Your task to perform on an android device: change keyboard looks Image 0: 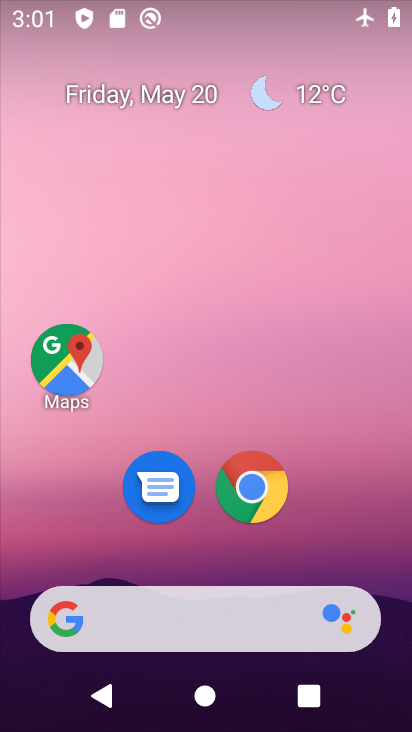
Step 0: drag from (333, 496) to (281, 321)
Your task to perform on an android device: change keyboard looks Image 1: 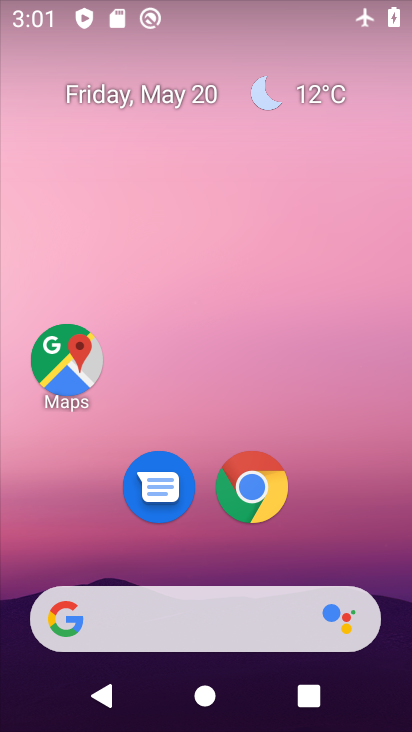
Step 1: drag from (333, 386) to (369, 111)
Your task to perform on an android device: change keyboard looks Image 2: 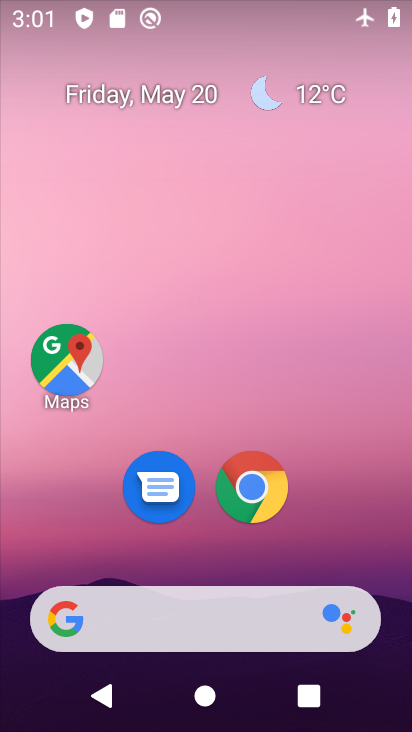
Step 2: drag from (311, 476) to (215, 163)
Your task to perform on an android device: change keyboard looks Image 3: 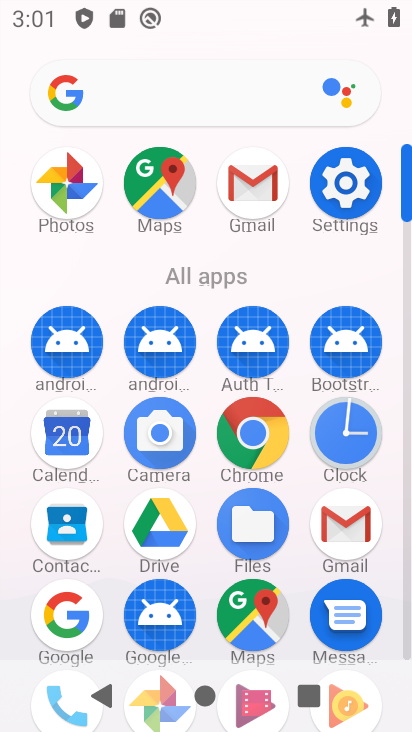
Step 3: click (352, 190)
Your task to perform on an android device: change keyboard looks Image 4: 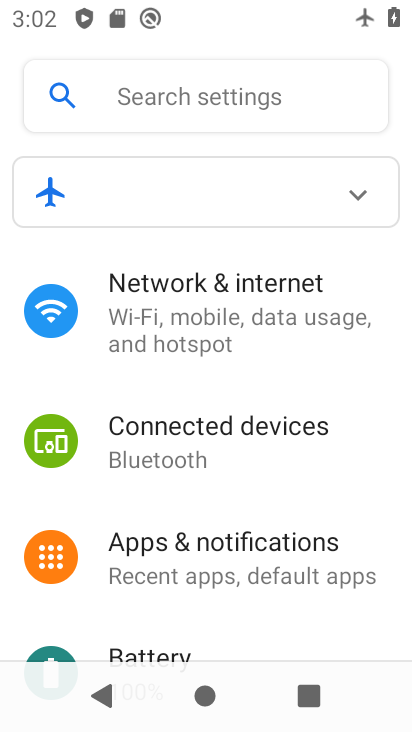
Step 4: drag from (210, 604) to (214, 182)
Your task to perform on an android device: change keyboard looks Image 5: 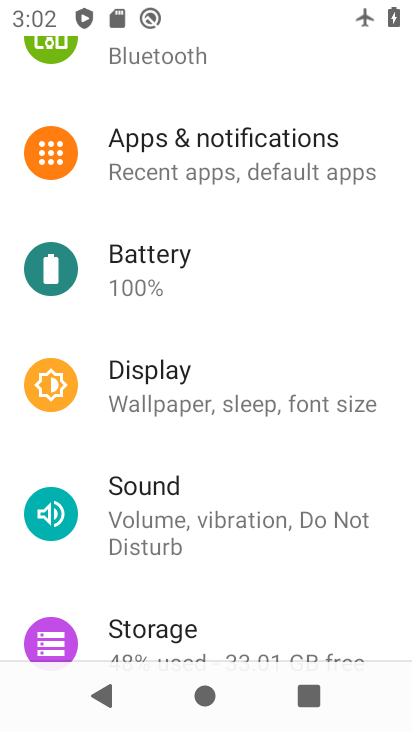
Step 5: drag from (227, 643) to (176, 345)
Your task to perform on an android device: change keyboard looks Image 6: 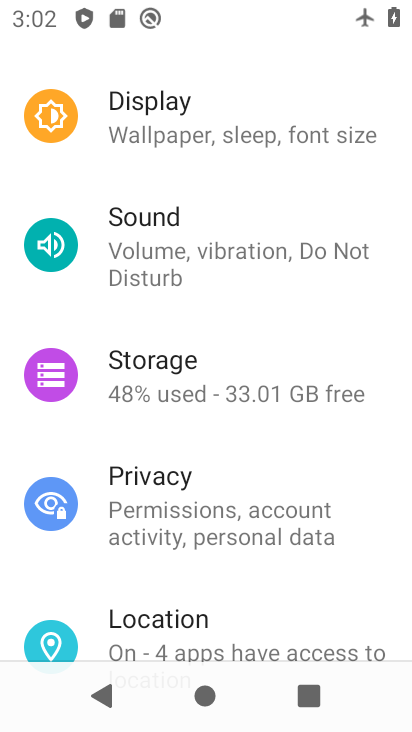
Step 6: drag from (190, 563) to (180, 279)
Your task to perform on an android device: change keyboard looks Image 7: 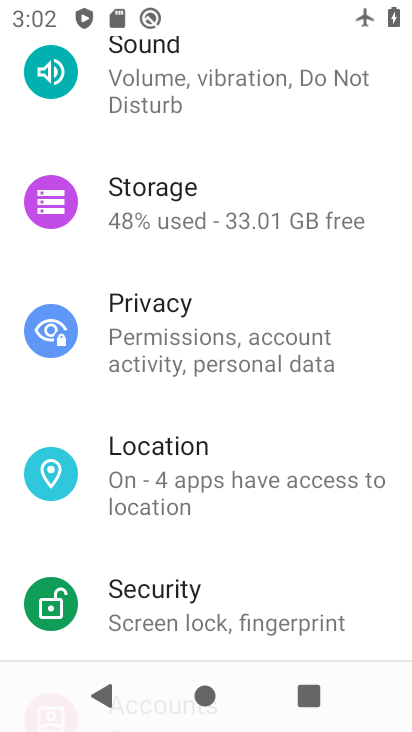
Step 7: drag from (244, 565) to (215, 254)
Your task to perform on an android device: change keyboard looks Image 8: 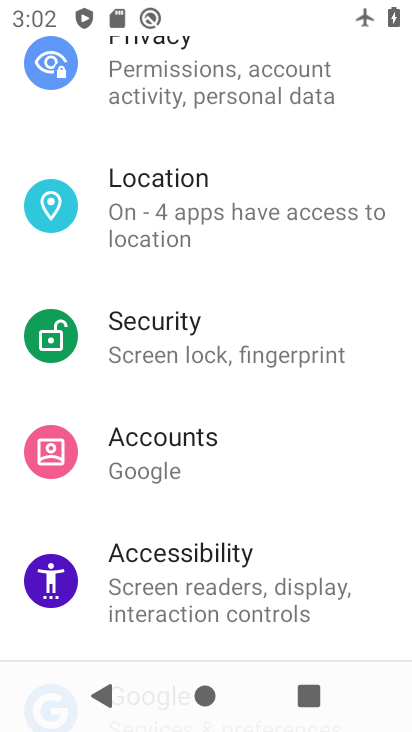
Step 8: drag from (221, 576) to (232, 269)
Your task to perform on an android device: change keyboard looks Image 9: 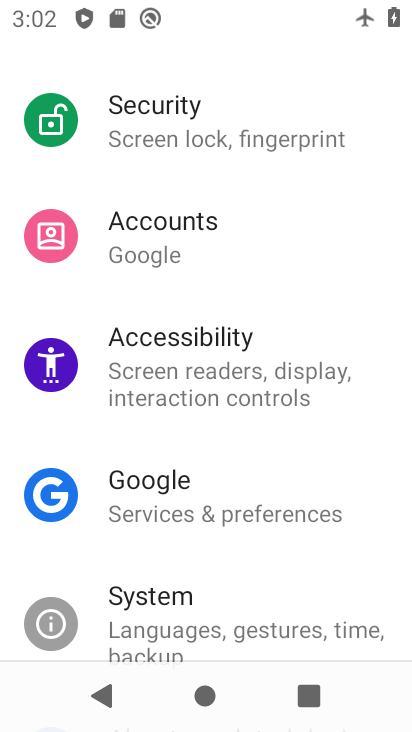
Step 9: drag from (204, 574) to (216, 318)
Your task to perform on an android device: change keyboard looks Image 10: 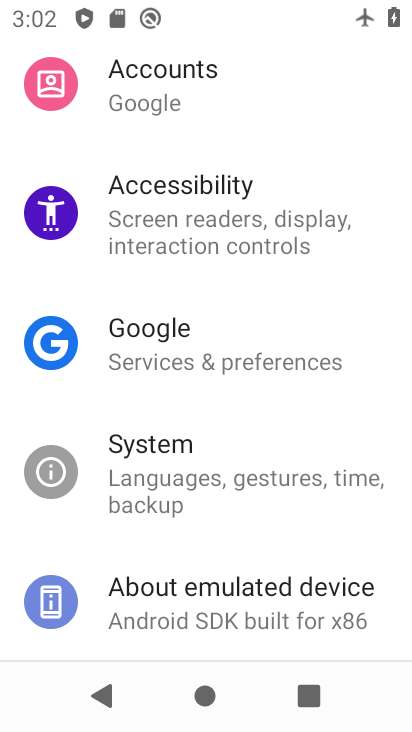
Step 10: drag from (247, 286) to (228, 441)
Your task to perform on an android device: change keyboard looks Image 11: 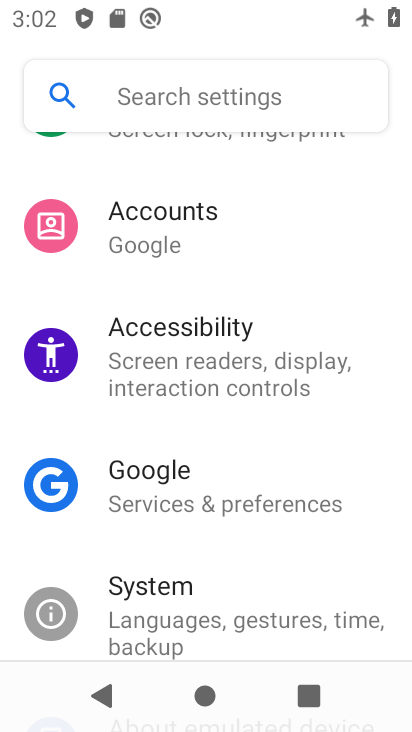
Step 11: drag from (260, 285) to (260, 446)
Your task to perform on an android device: change keyboard looks Image 12: 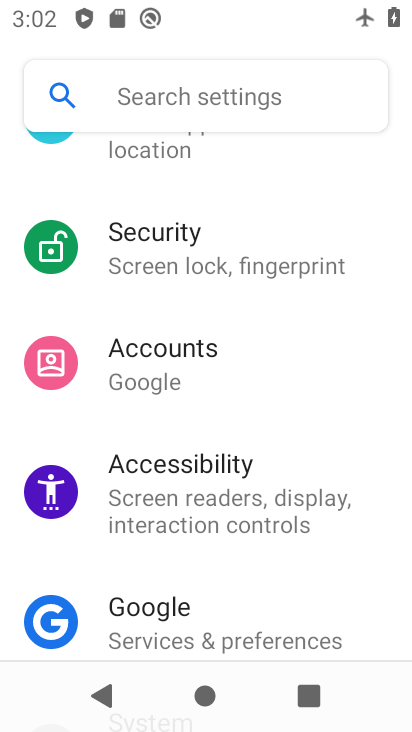
Step 12: drag from (254, 522) to (250, 324)
Your task to perform on an android device: change keyboard looks Image 13: 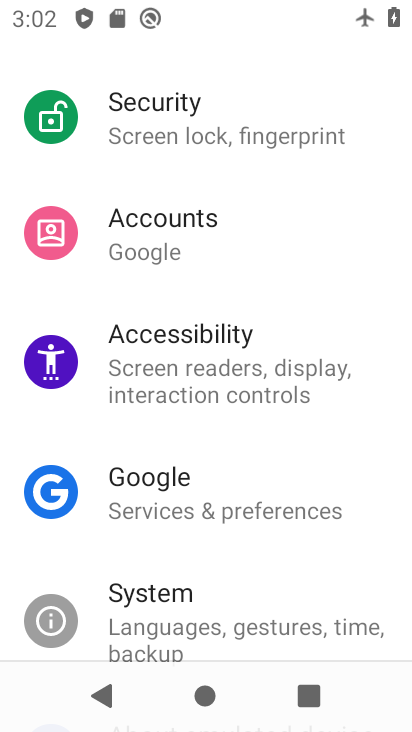
Step 13: drag from (214, 541) to (232, 326)
Your task to perform on an android device: change keyboard looks Image 14: 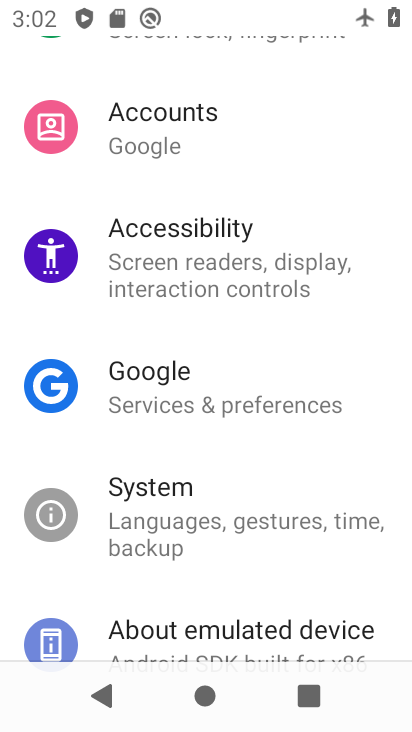
Step 14: drag from (233, 316) to (207, 478)
Your task to perform on an android device: change keyboard looks Image 15: 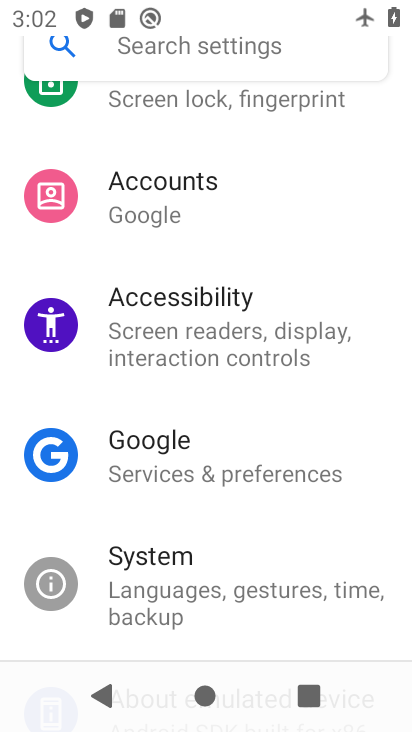
Step 15: drag from (239, 262) to (253, 497)
Your task to perform on an android device: change keyboard looks Image 16: 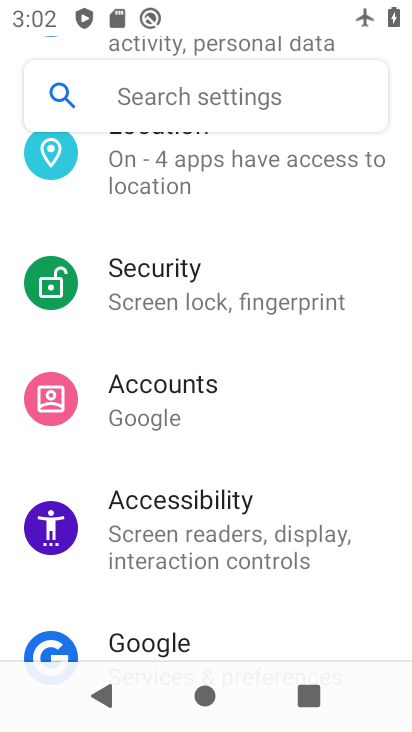
Step 16: drag from (230, 272) to (229, 479)
Your task to perform on an android device: change keyboard looks Image 17: 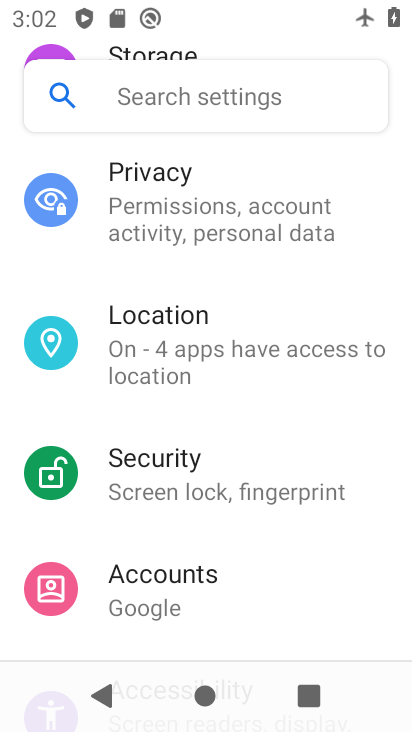
Step 17: drag from (243, 344) to (246, 435)
Your task to perform on an android device: change keyboard looks Image 18: 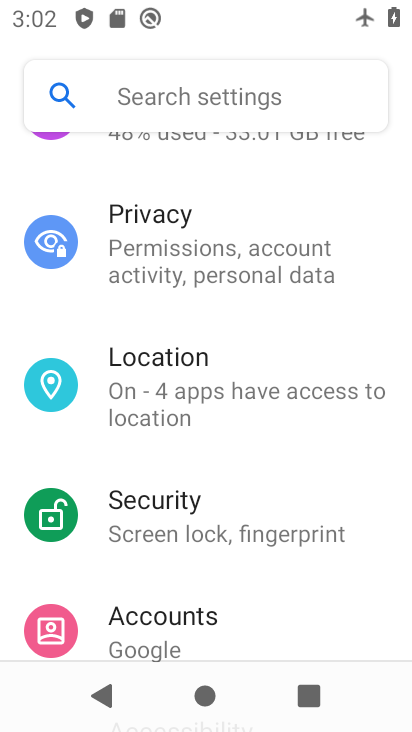
Step 18: drag from (215, 546) to (191, 210)
Your task to perform on an android device: change keyboard looks Image 19: 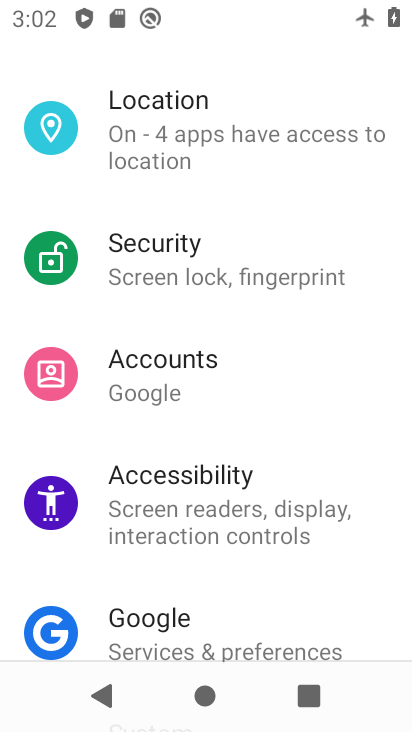
Step 19: drag from (220, 568) to (250, 289)
Your task to perform on an android device: change keyboard looks Image 20: 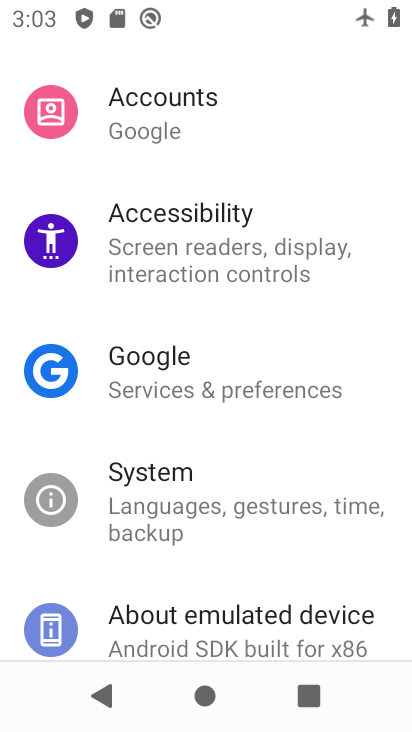
Step 20: drag from (151, 216) to (150, 357)
Your task to perform on an android device: change keyboard looks Image 21: 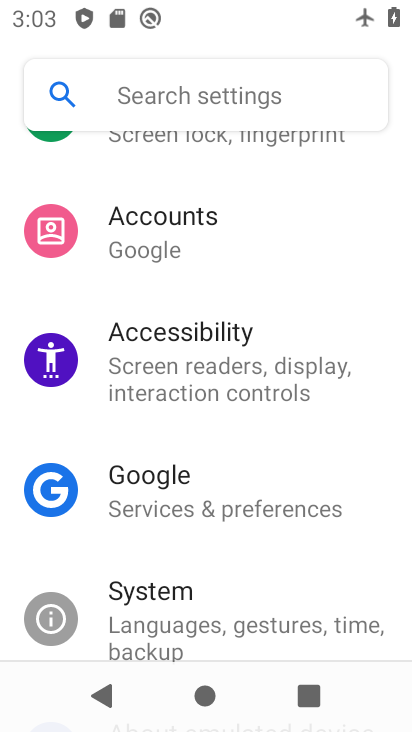
Step 21: drag from (151, 552) to (160, 346)
Your task to perform on an android device: change keyboard looks Image 22: 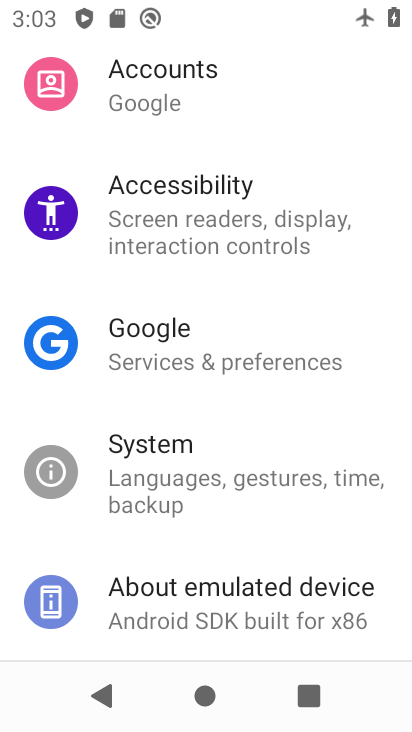
Step 22: click (161, 483)
Your task to perform on an android device: change keyboard looks Image 23: 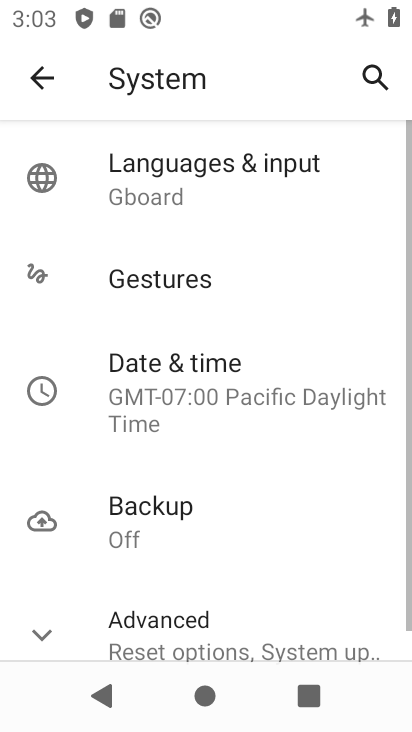
Step 23: click (184, 156)
Your task to perform on an android device: change keyboard looks Image 24: 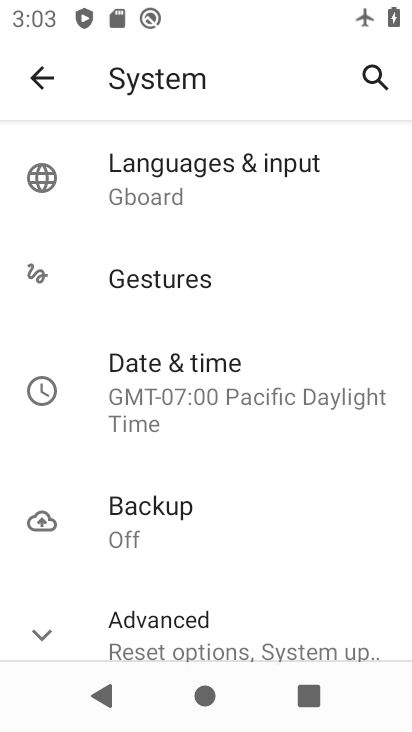
Step 24: click (167, 186)
Your task to perform on an android device: change keyboard looks Image 25: 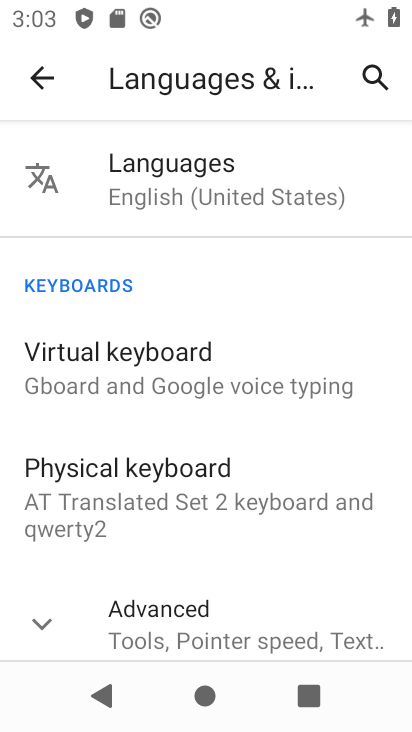
Step 25: click (148, 367)
Your task to perform on an android device: change keyboard looks Image 26: 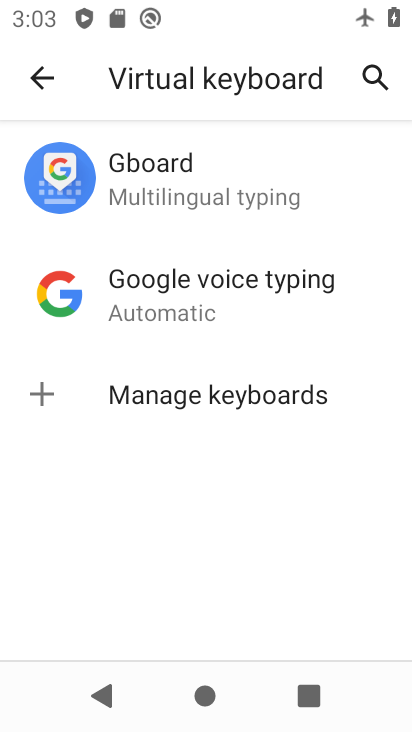
Step 26: click (177, 186)
Your task to perform on an android device: change keyboard looks Image 27: 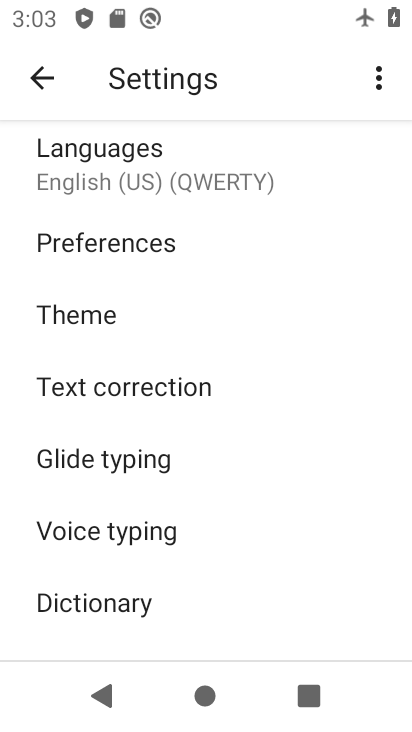
Step 27: click (92, 318)
Your task to perform on an android device: change keyboard looks Image 28: 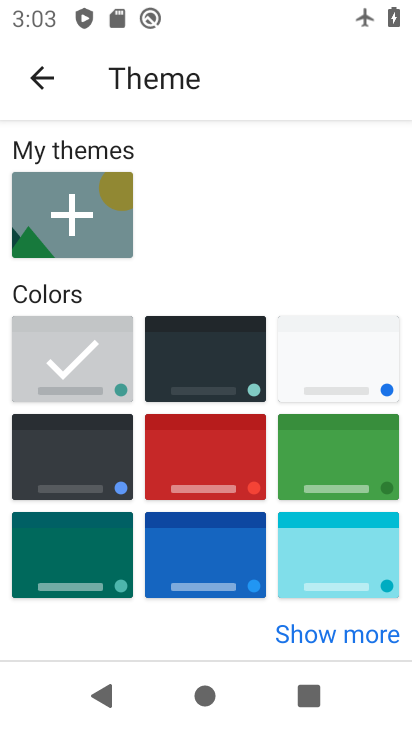
Step 28: click (165, 354)
Your task to perform on an android device: change keyboard looks Image 29: 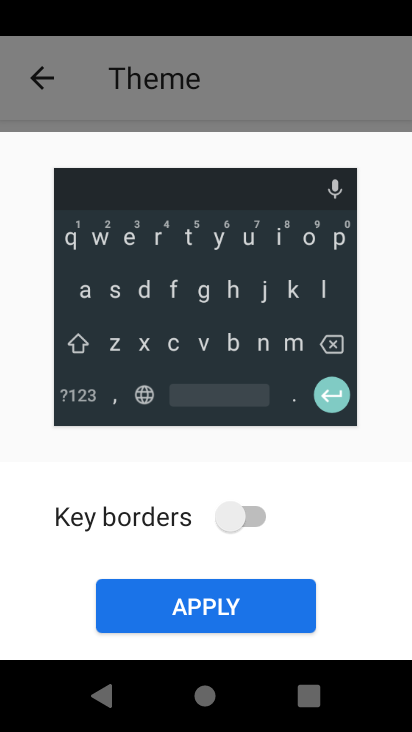
Step 29: click (191, 603)
Your task to perform on an android device: change keyboard looks Image 30: 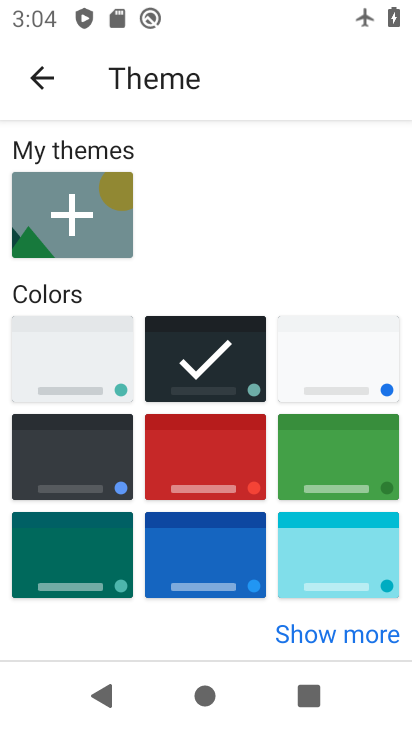
Step 30: task complete